Your task to perform on an android device: Open Yahoo.com Image 0: 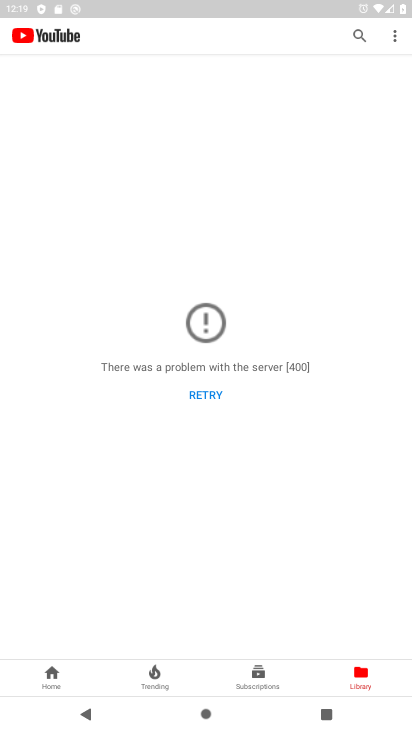
Step 0: press home button
Your task to perform on an android device: Open Yahoo.com Image 1: 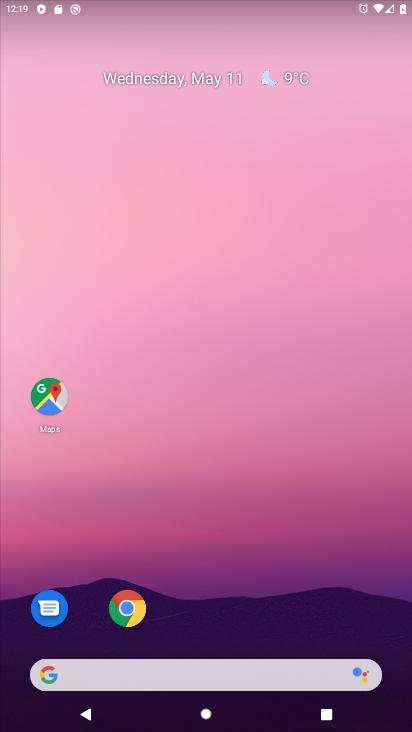
Step 1: click (135, 598)
Your task to perform on an android device: Open Yahoo.com Image 2: 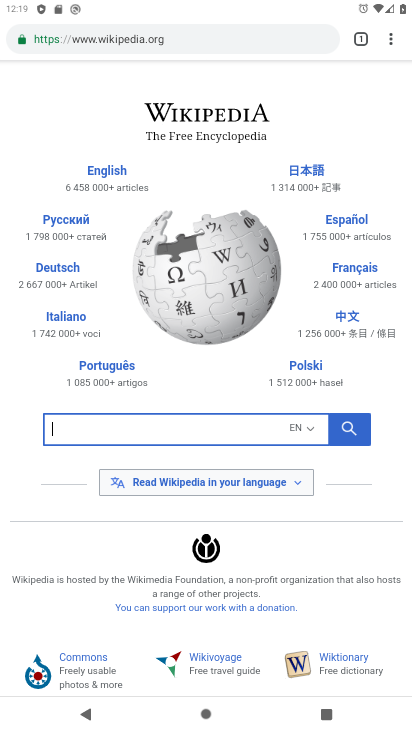
Step 2: click (287, 46)
Your task to perform on an android device: Open Yahoo.com Image 3: 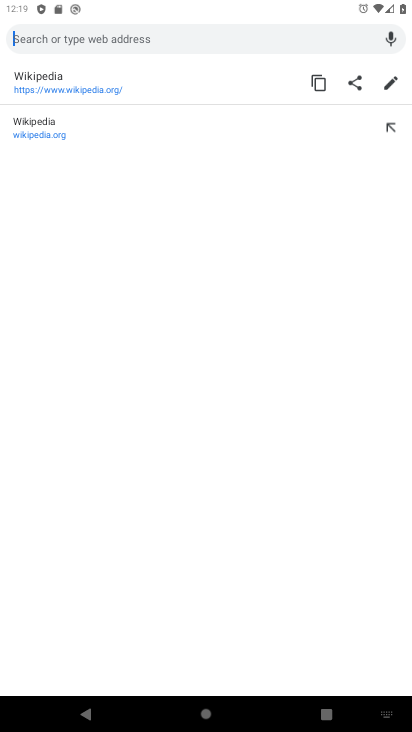
Step 3: type "yahoo.com"
Your task to perform on an android device: Open Yahoo.com Image 4: 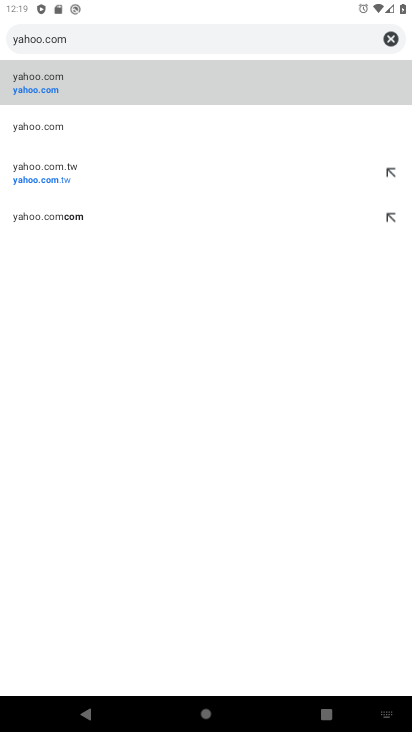
Step 4: click (241, 168)
Your task to perform on an android device: Open Yahoo.com Image 5: 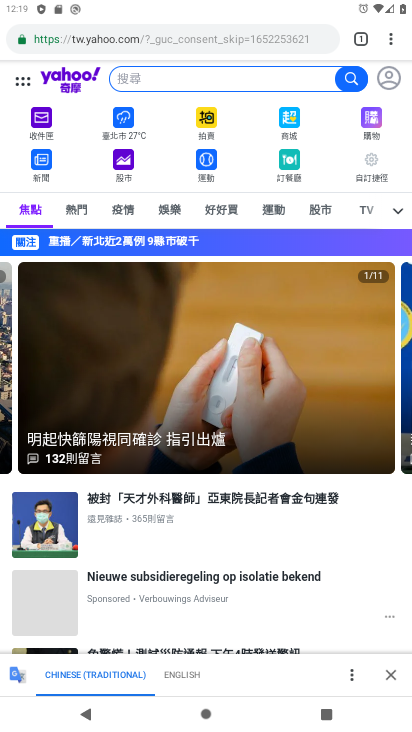
Step 5: task complete